Your task to perform on an android device: change notifications settings Image 0: 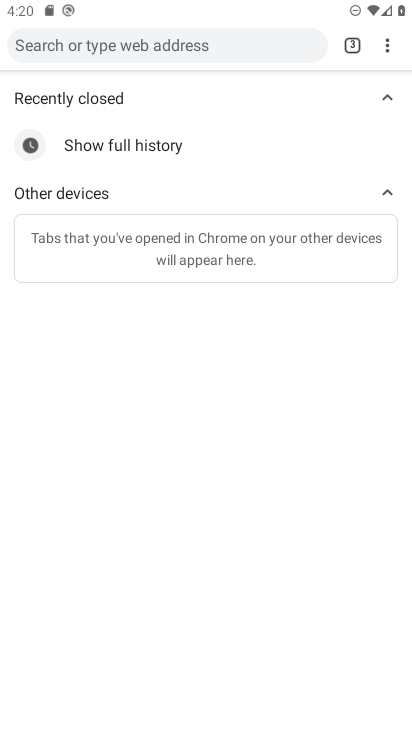
Step 0: press back button
Your task to perform on an android device: change notifications settings Image 1: 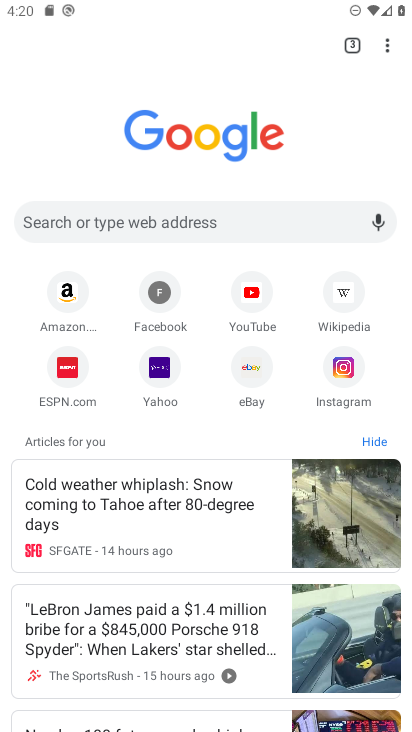
Step 1: press back button
Your task to perform on an android device: change notifications settings Image 2: 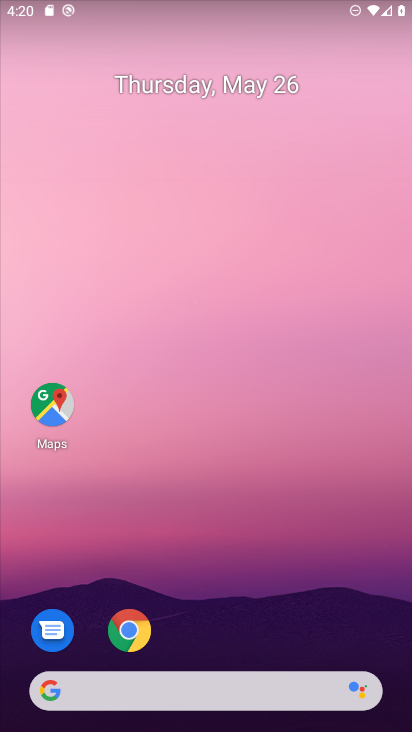
Step 2: drag from (243, 624) to (173, 74)
Your task to perform on an android device: change notifications settings Image 3: 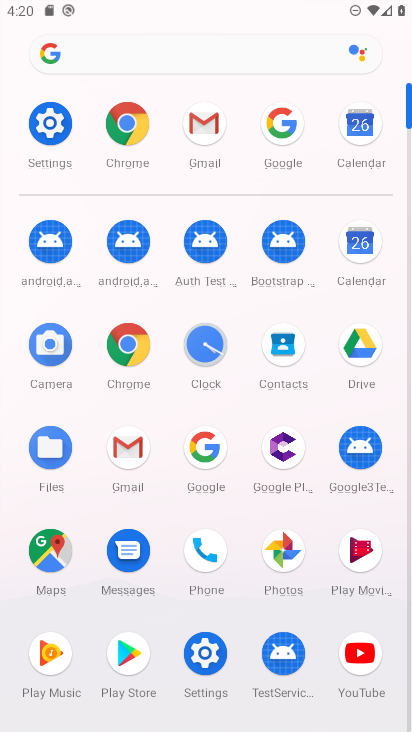
Step 3: click (51, 120)
Your task to perform on an android device: change notifications settings Image 4: 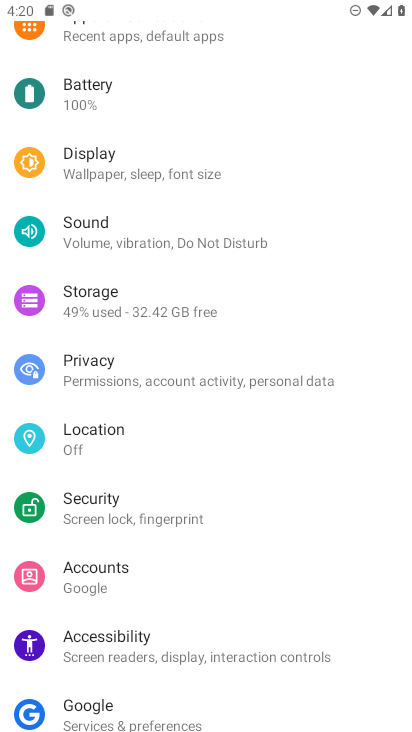
Step 4: drag from (117, 118) to (144, 233)
Your task to perform on an android device: change notifications settings Image 5: 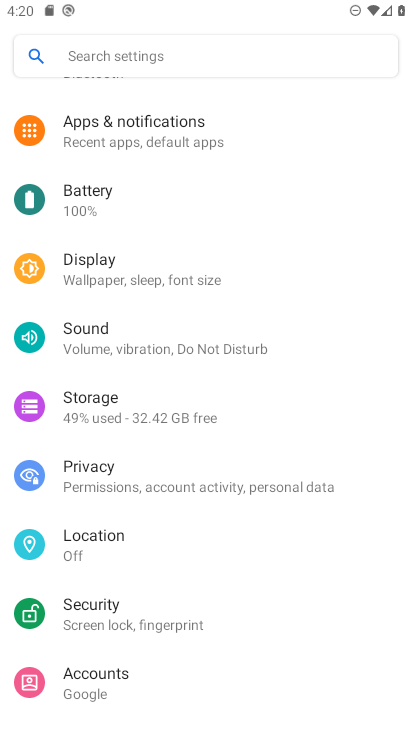
Step 5: drag from (143, 169) to (175, 344)
Your task to perform on an android device: change notifications settings Image 6: 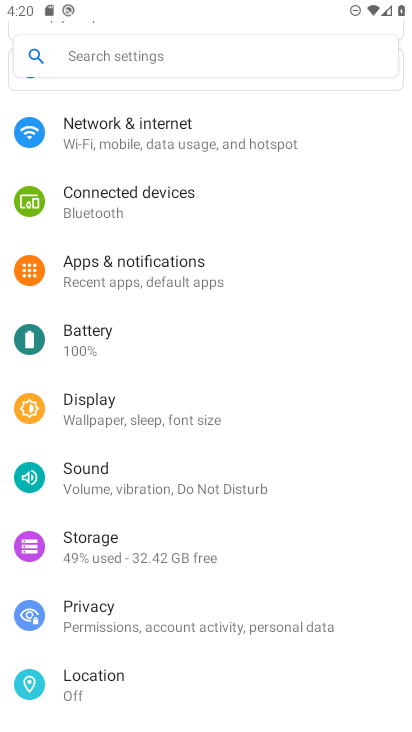
Step 6: drag from (163, 216) to (192, 337)
Your task to perform on an android device: change notifications settings Image 7: 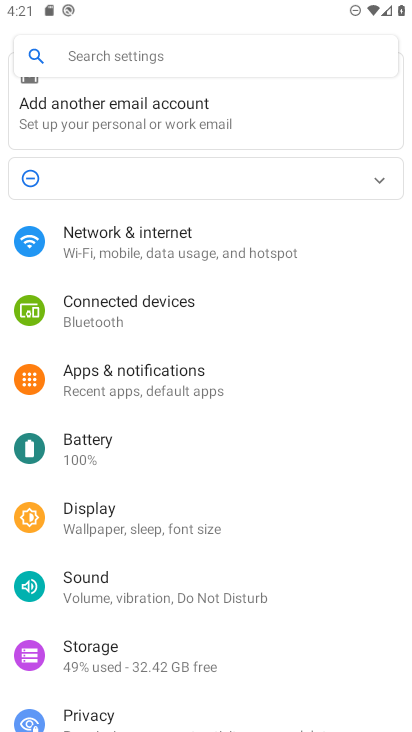
Step 7: click (132, 364)
Your task to perform on an android device: change notifications settings Image 8: 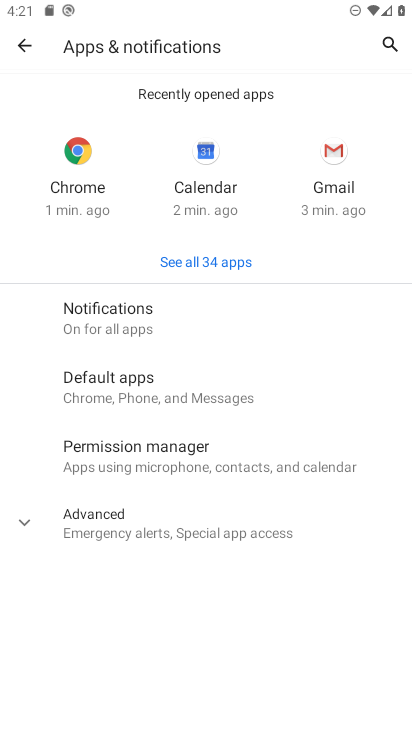
Step 8: click (115, 307)
Your task to perform on an android device: change notifications settings Image 9: 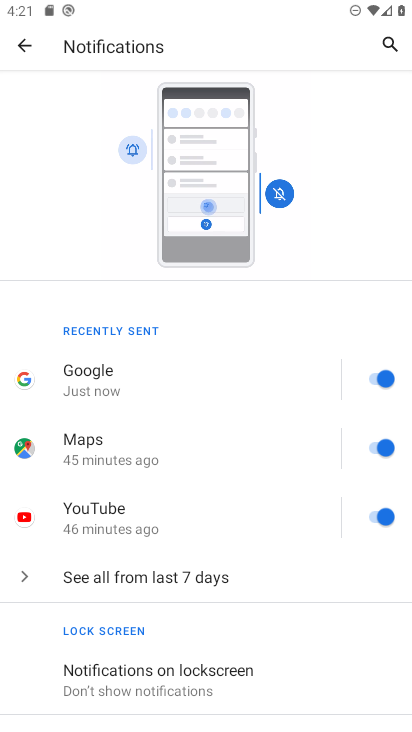
Step 9: drag from (181, 645) to (210, 543)
Your task to perform on an android device: change notifications settings Image 10: 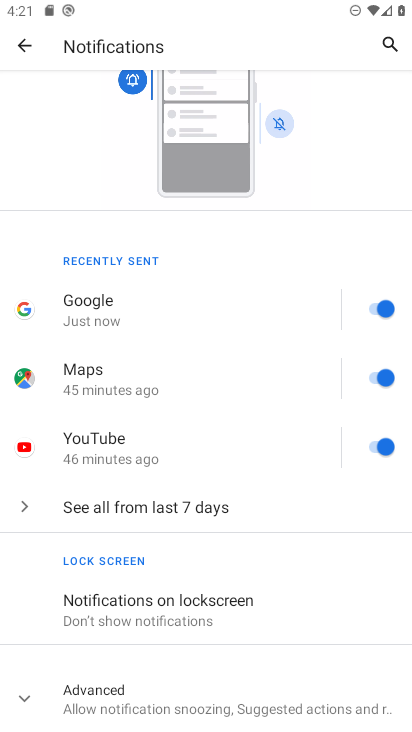
Step 10: drag from (168, 663) to (195, 605)
Your task to perform on an android device: change notifications settings Image 11: 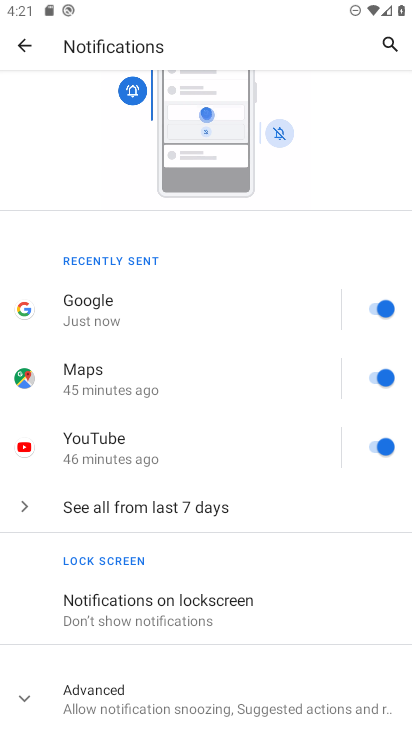
Step 11: click (109, 710)
Your task to perform on an android device: change notifications settings Image 12: 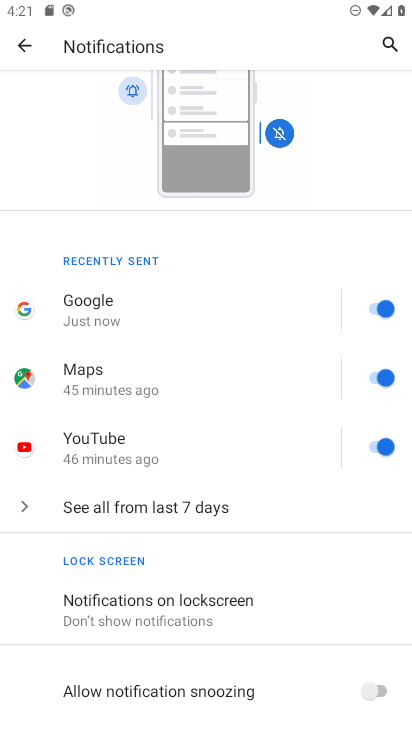
Step 12: drag from (176, 674) to (260, 428)
Your task to perform on an android device: change notifications settings Image 13: 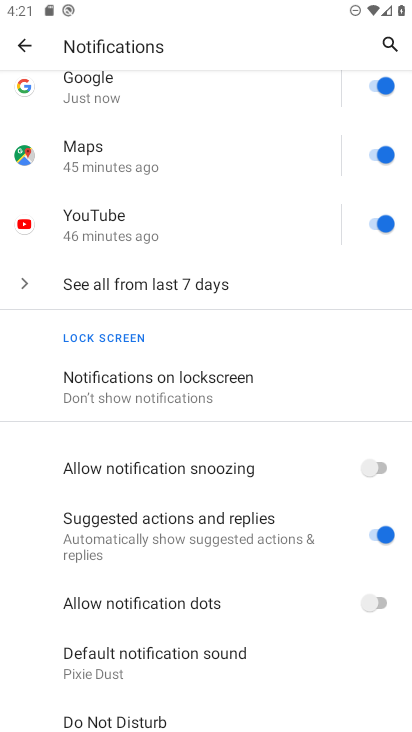
Step 13: click (371, 598)
Your task to perform on an android device: change notifications settings Image 14: 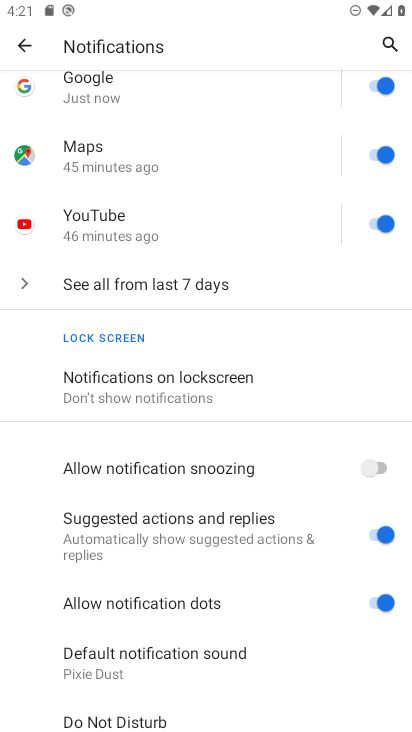
Step 14: task complete